Your task to perform on an android device: add a contact Image 0: 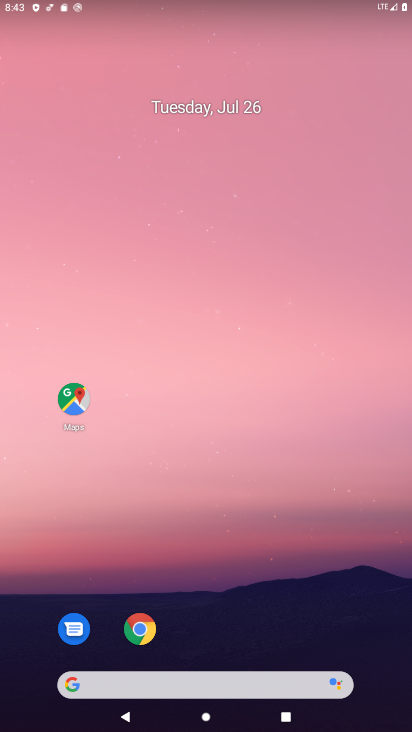
Step 0: drag from (222, 654) to (392, 6)
Your task to perform on an android device: add a contact Image 1: 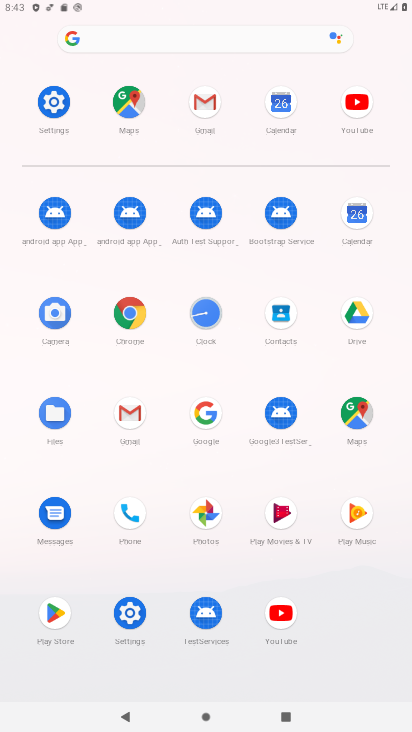
Step 1: click (114, 524)
Your task to perform on an android device: add a contact Image 2: 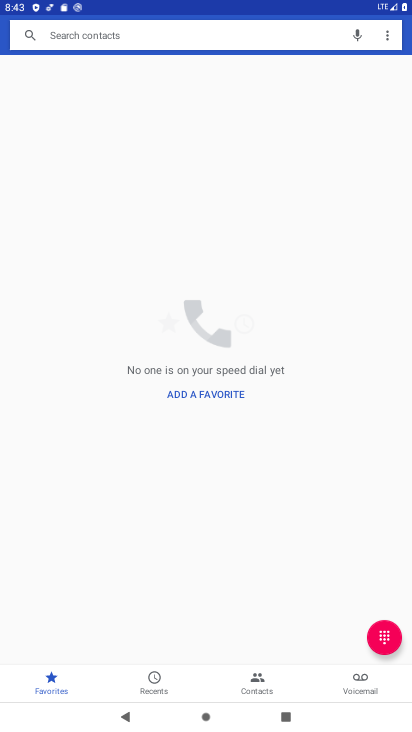
Step 2: click (262, 685)
Your task to perform on an android device: add a contact Image 3: 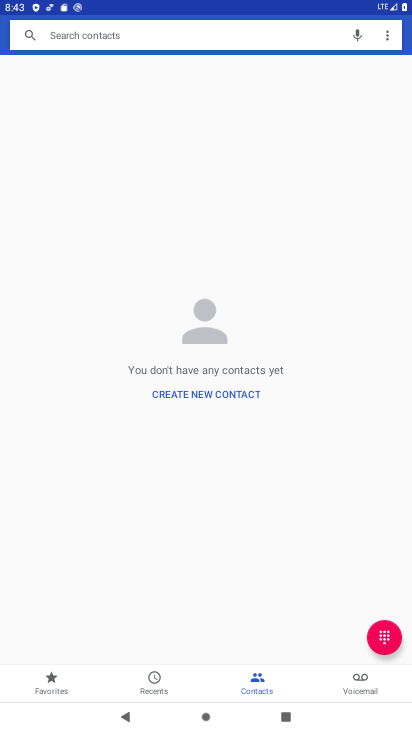
Step 3: click (187, 386)
Your task to perform on an android device: add a contact Image 4: 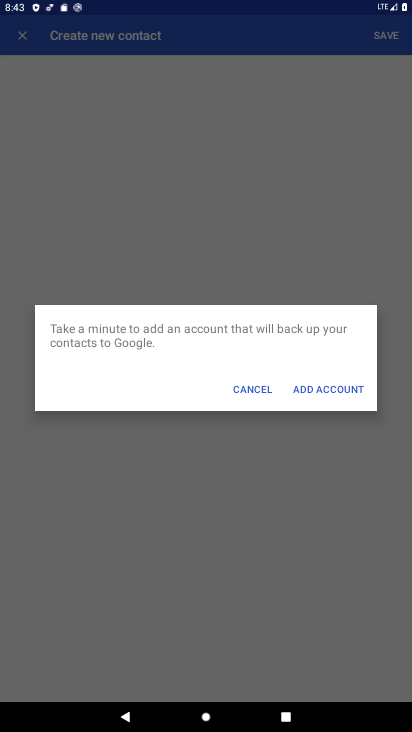
Step 4: click (334, 386)
Your task to perform on an android device: add a contact Image 5: 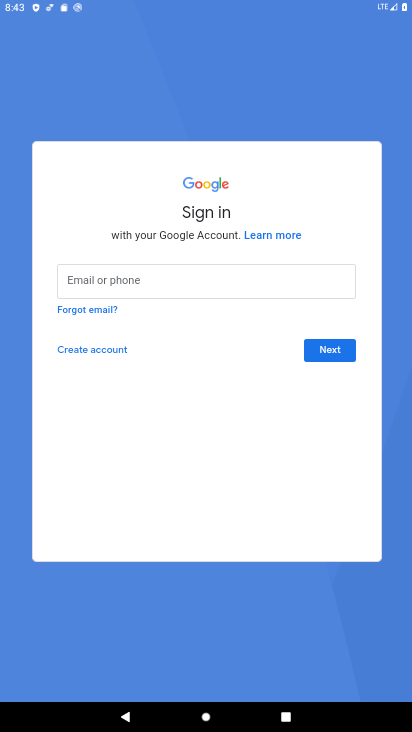
Step 5: task complete